Your task to perform on an android device: Play the last video I watched on Youtube Image 0: 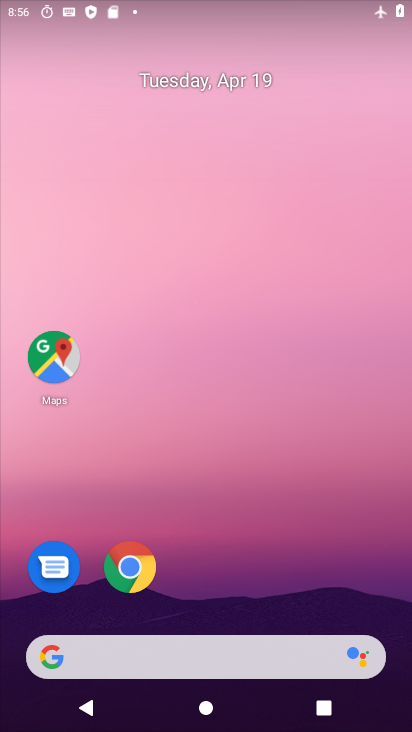
Step 0: drag from (208, 727) to (180, 102)
Your task to perform on an android device: Play the last video I watched on Youtube Image 1: 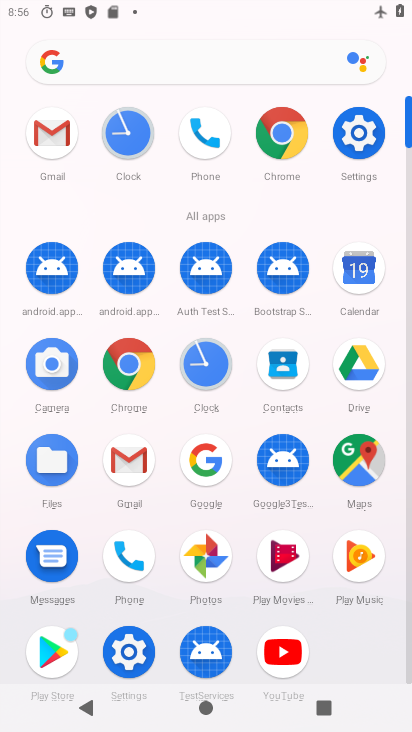
Step 1: click (281, 655)
Your task to perform on an android device: Play the last video I watched on Youtube Image 2: 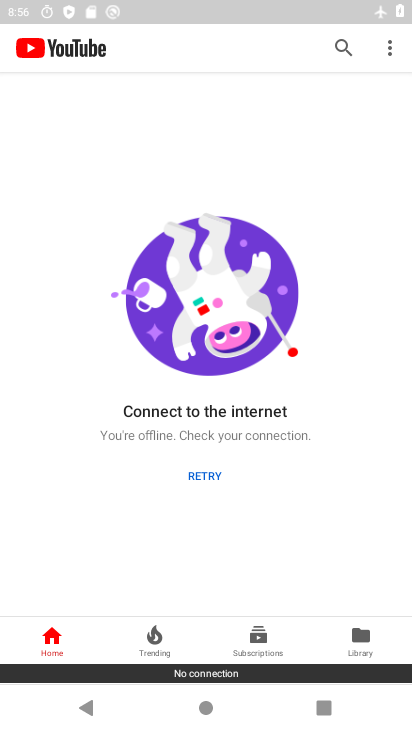
Step 2: click (364, 629)
Your task to perform on an android device: Play the last video I watched on Youtube Image 3: 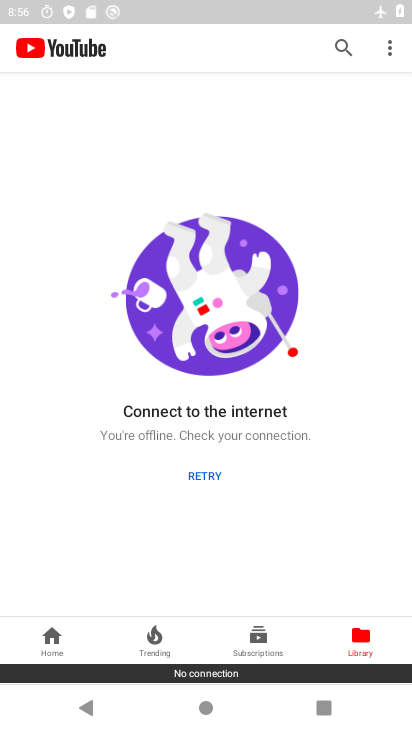
Step 3: task complete